Your task to perform on an android device: Open calendar and show me the first week of next month Image 0: 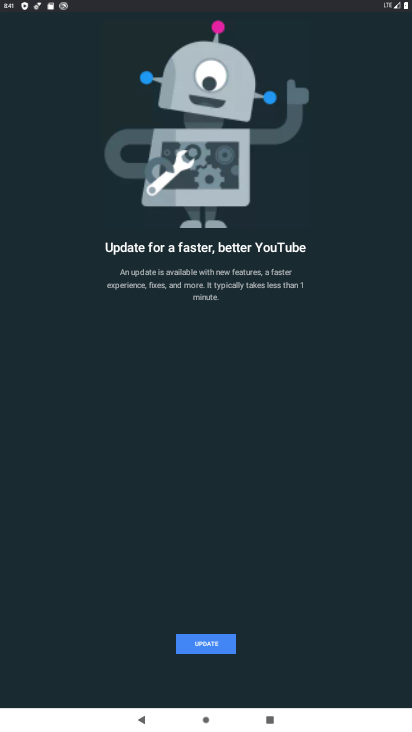
Step 0: press home button
Your task to perform on an android device: Open calendar and show me the first week of next month Image 1: 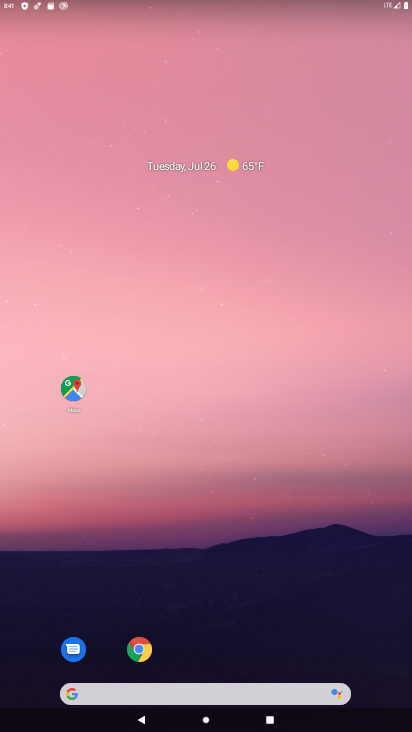
Step 1: drag from (213, 689) to (254, 162)
Your task to perform on an android device: Open calendar and show me the first week of next month Image 2: 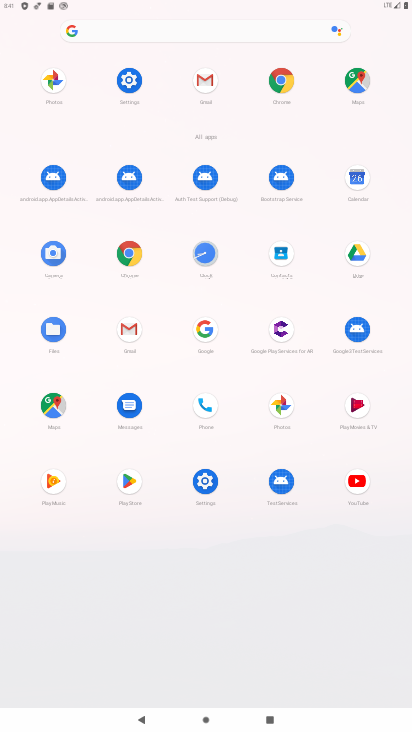
Step 2: click (356, 178)
Your task to perform on an android device: Open calendar and show me the first week of next month Image 3: 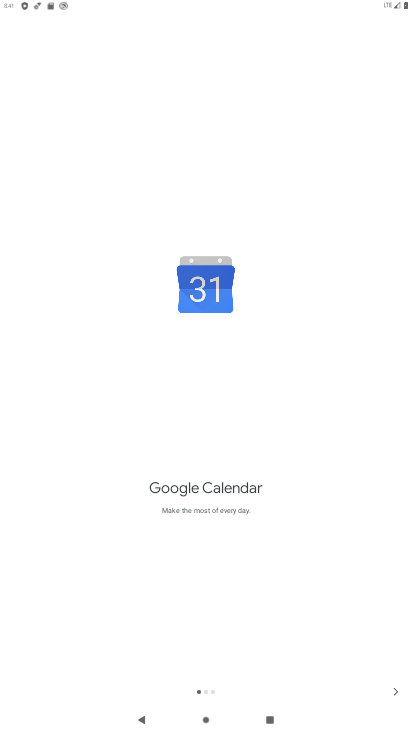
Step 3: click (396, 690)
Your task to perform on an android device: Open calendar and show me the first week of next month Image 4: 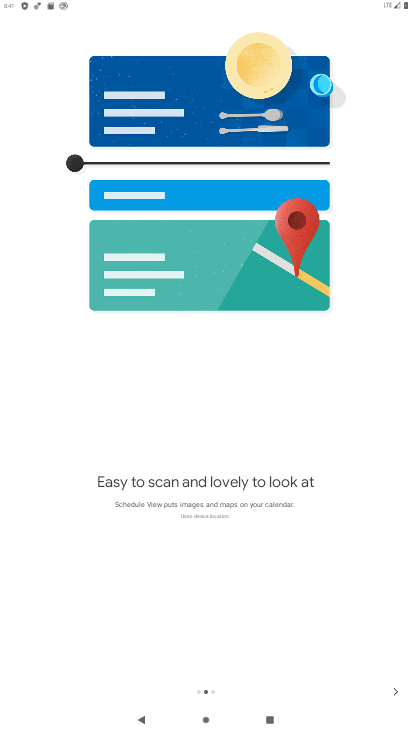
Step 4: click (396, 690)
Your task to perform on an android device: Open calendar and show me the first week of next month Image 5: 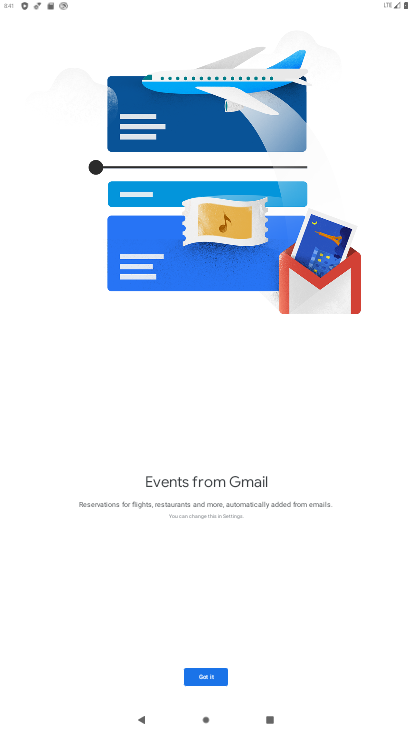
Step 5: click (206, 677)
Your task to perform on an android device: Open calendar and show me the first week of next month Image 6: 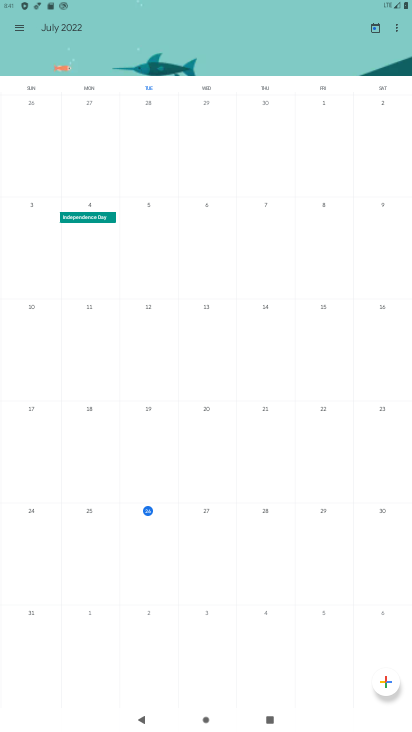
Step 6: drag from (338, 443) to (14, 393)
Your task to perform on an android device: Open calendar and show me the first week of next month Image 7: 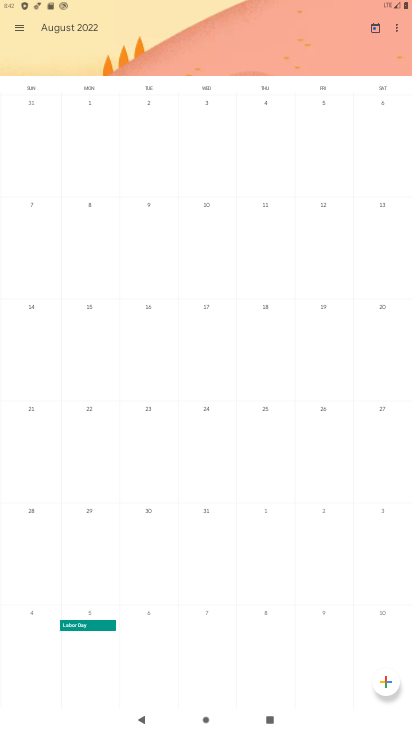
Step 7: click (90, 121)
Your task to perform on an android device: Open calendar and show me the first week of next month Image 8: 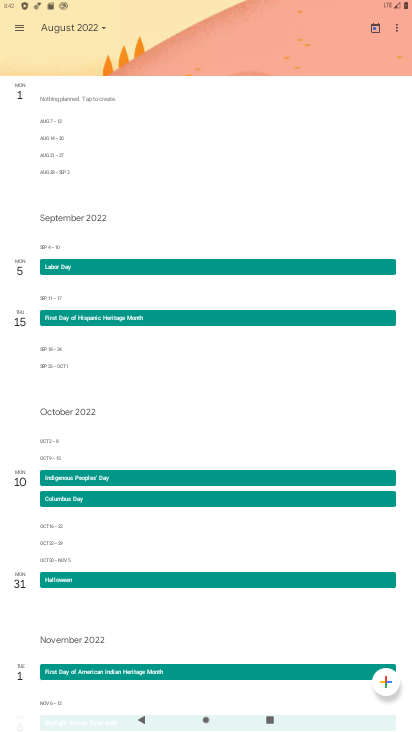
Step 8: click (22, 29)
Your task to perform on an android device: Open calendar and show me the first week of next month Image 9: 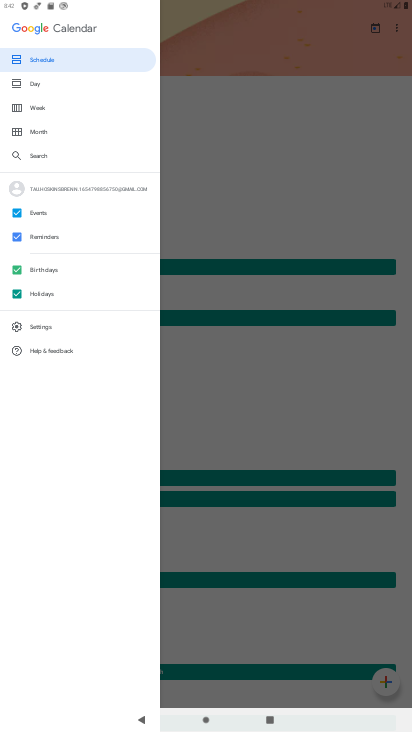
Step 9: click (31, 107)
Your task to perform on an android device: Open calendar and show me the first week of next month Image 10: 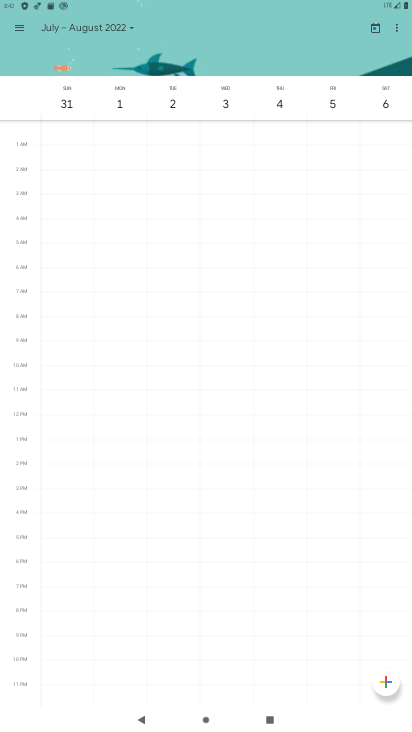
Step 10: task complete